Your task to perform on an android device: Go to settings Image 0: 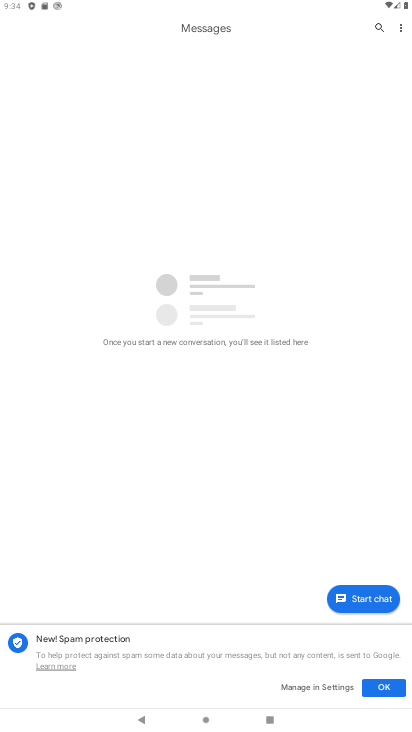
Step 0: press home button
Your task to perform on an android device: Go to settings Image 1: 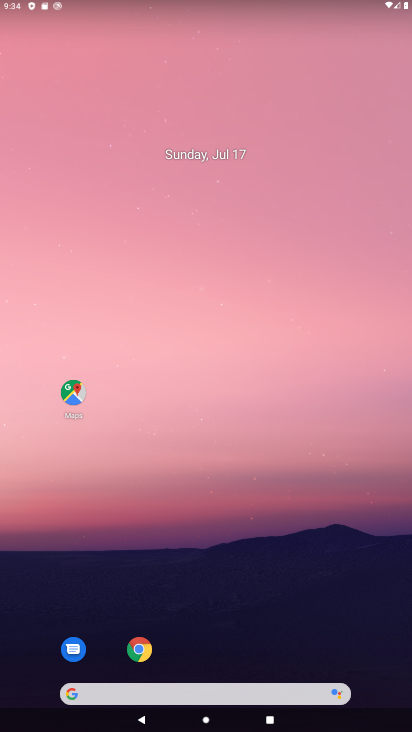
Step 1: drag from (22, 686) to (234, 33)
Your task to perform on an android device: Go to settings Image 2: 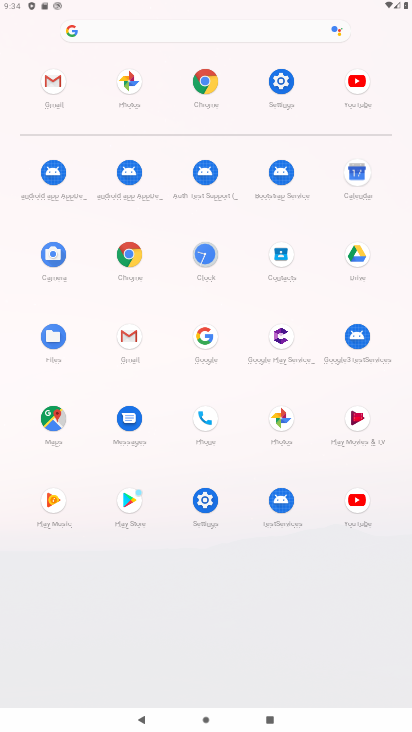
Step 2: click (201, 505)
Your task to perform on an android device: Go to settings Image 3: 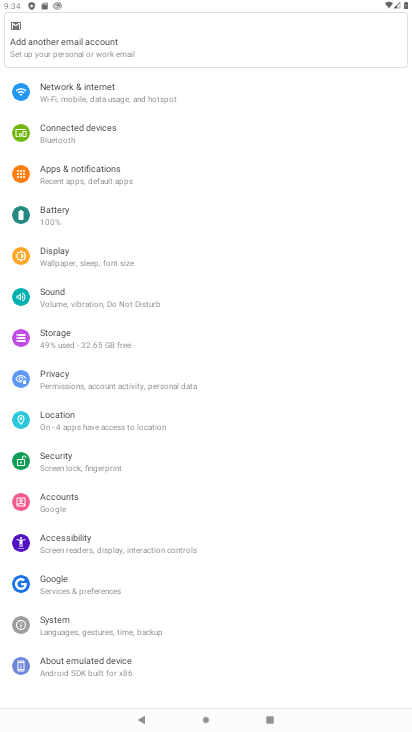
Step 3: task complete